Your task to perform on an android device: Play the last video I watched on Youtube Image 0: 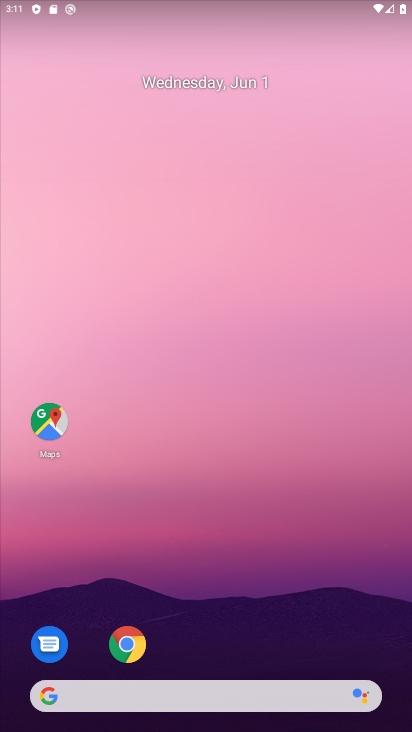
Step 0: drag from (230, 635) to (184, 113)
Your task to perform on an android device: Play the last video I watched on Youtube Image 1: 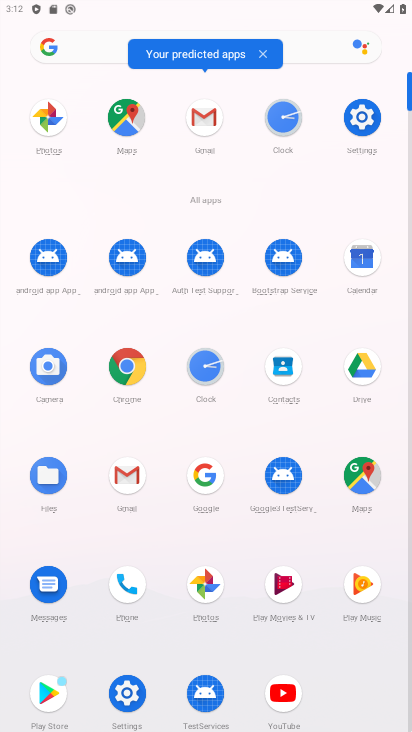
Step 1: click (298, 692)
Your task to perform on an android device: Play the last video I watched on Youtube Image 2: 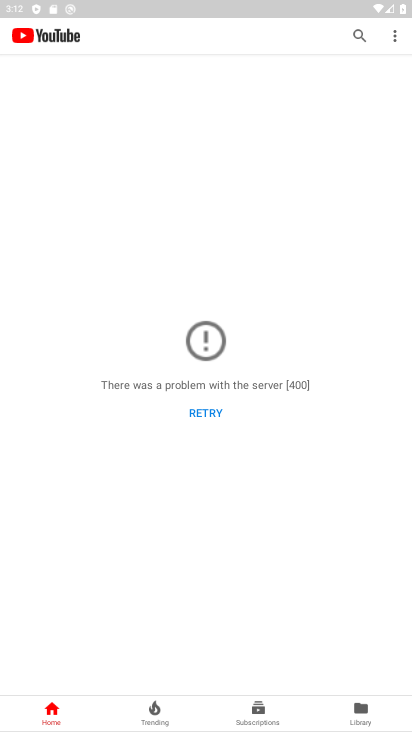
Step 2: click (370, 703)
Your task to perform on an android device: Play the last video I watched on Youtube Image 3: 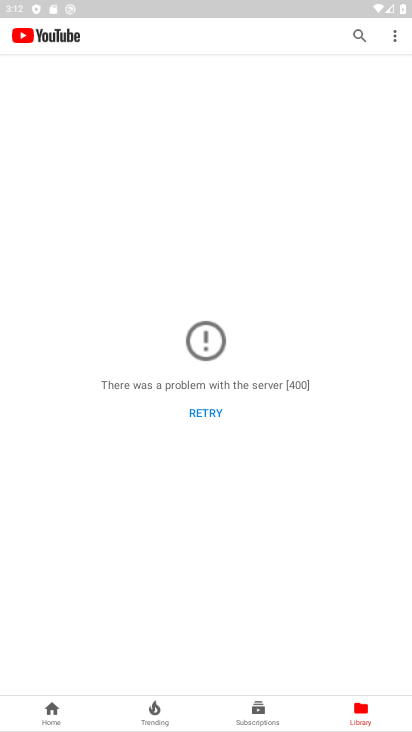
Step 3: task complete